Your task to perform on an android device: toggle notification dots Image 0: 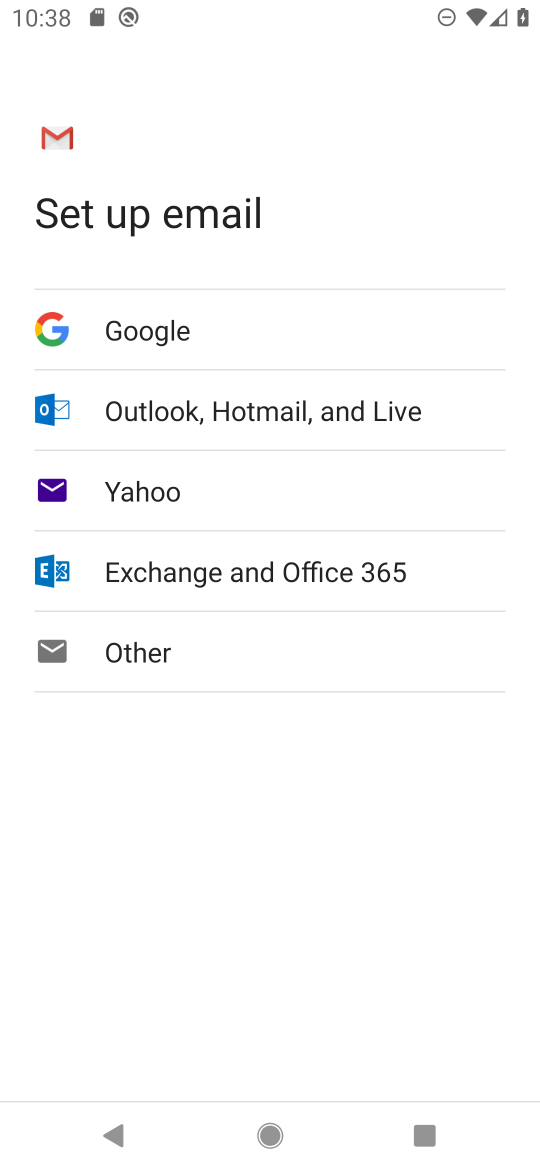
Step 0: press home button
Your task to perform on an android device: toggle notification dots Image 1: 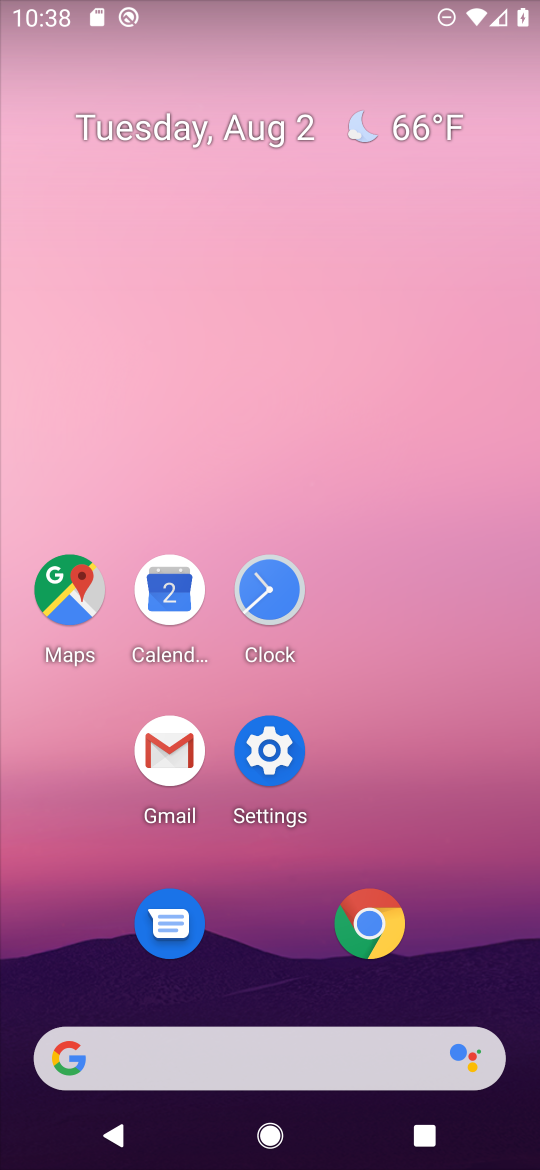
Step 1: click (264, 746)
Your task to perform on an android device: toggle notification dots Image 2: 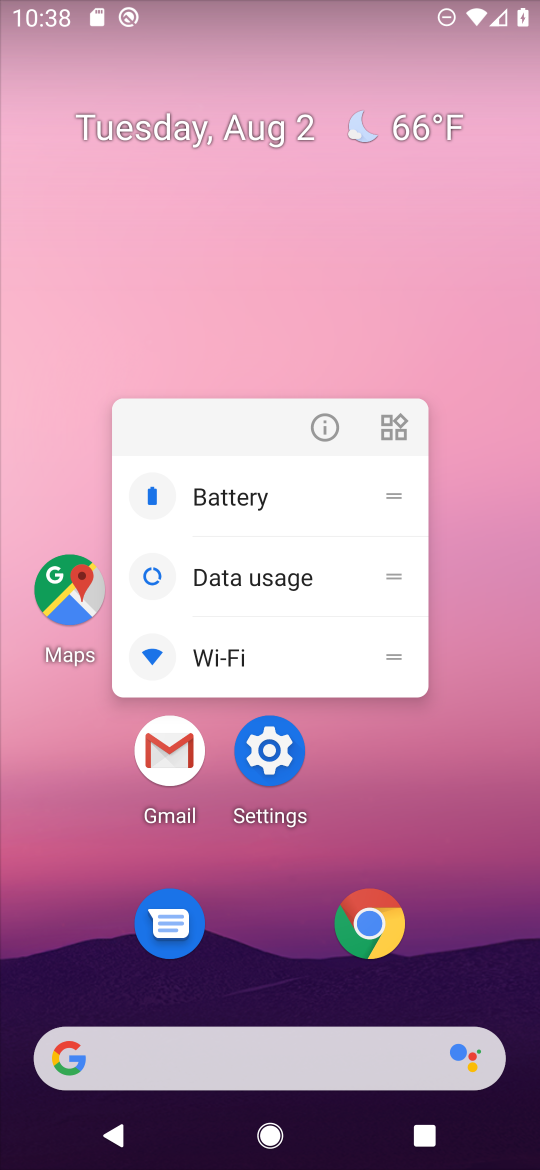
Step 2: click (264, 746)
Your task to perform on an android device: toggle notification dots Image 3: 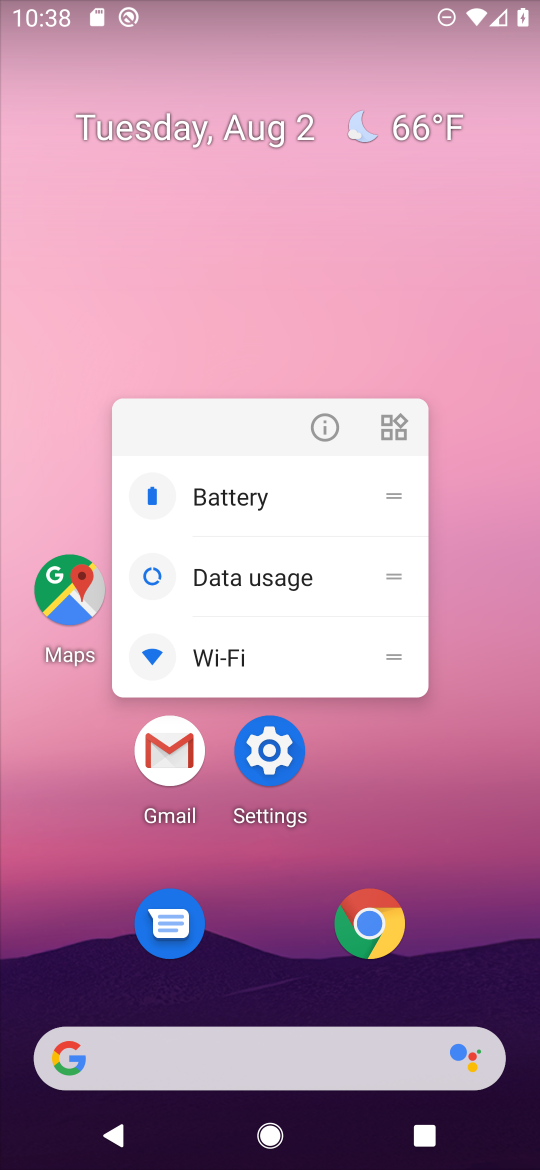
Step 3: click (264, 746)
Your task to perform on an android device: toggle notification dots Image 4: 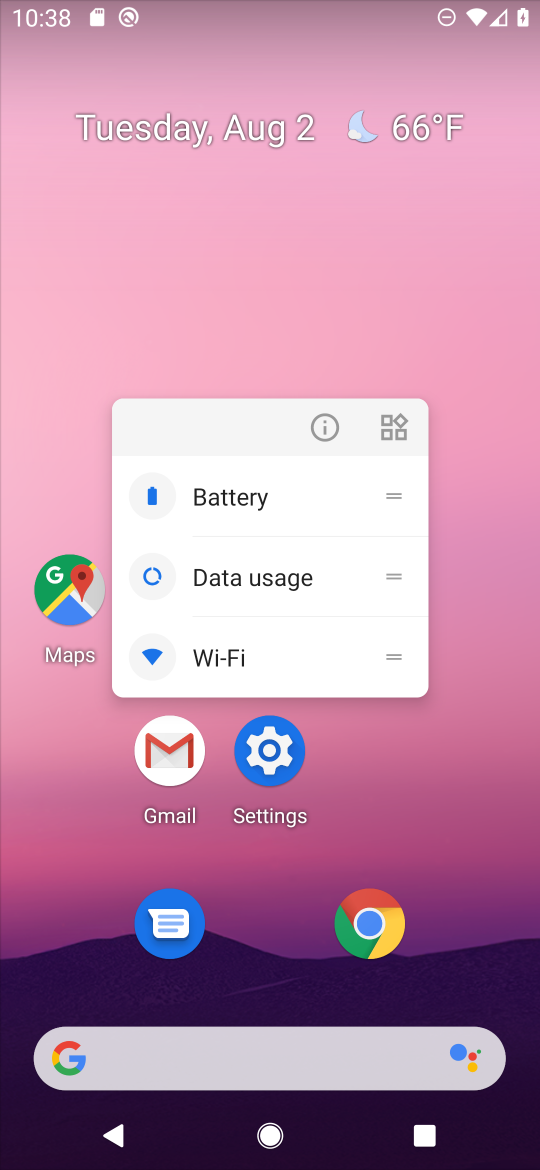
Step 4: click (264, 746)
Your task to perform on an android device: toggle notification dots Image 5: 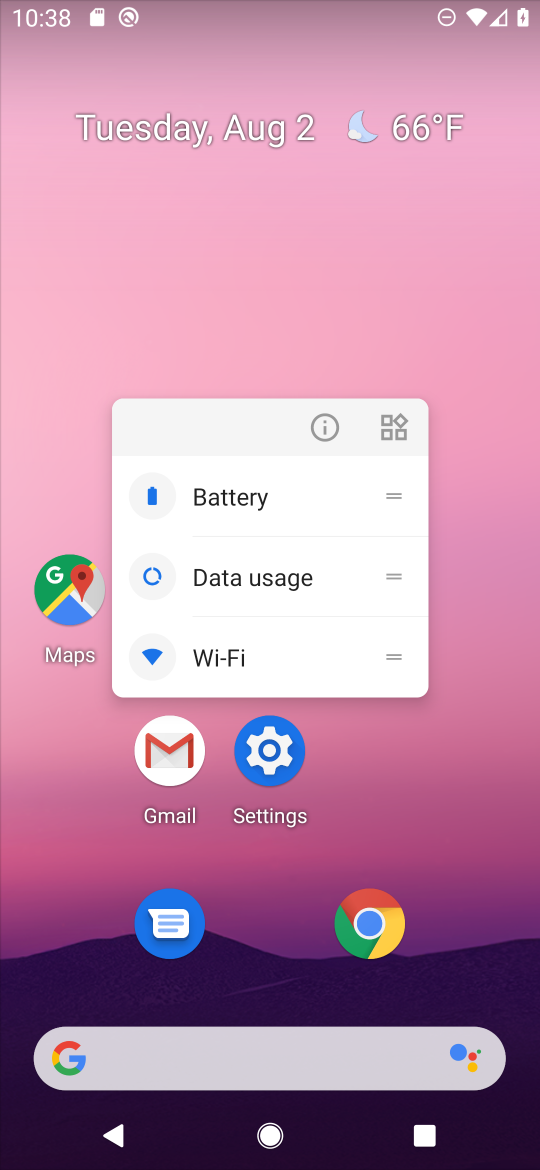
Step 5: click (264, 749)
Your task to perform on an android device: toggle notification dots Image 6: 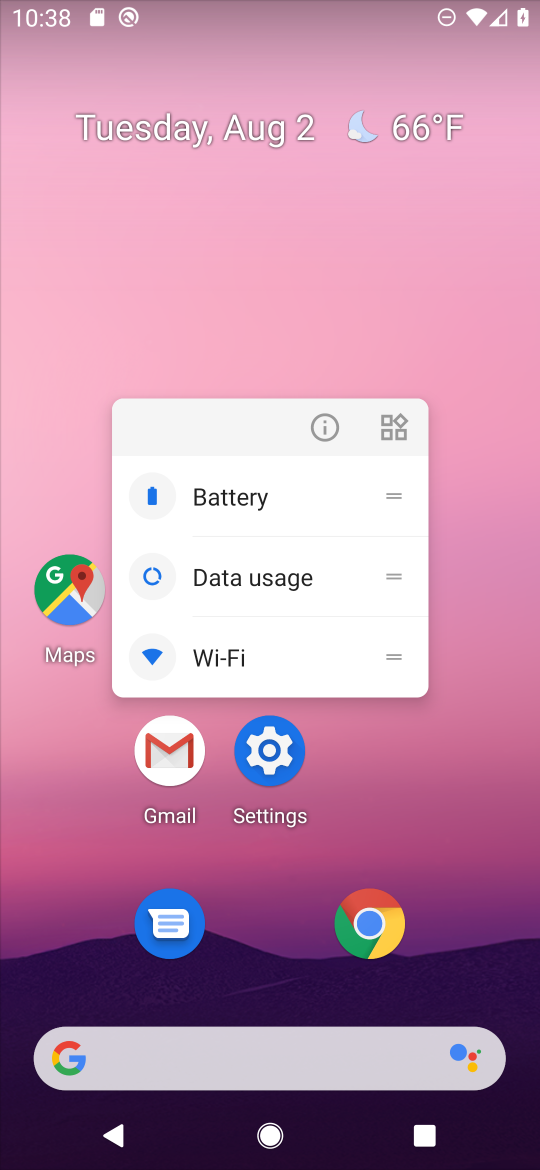
Step 6: click (264, 749)
Your task to perform on an android device: toggle notification dots Image 7: 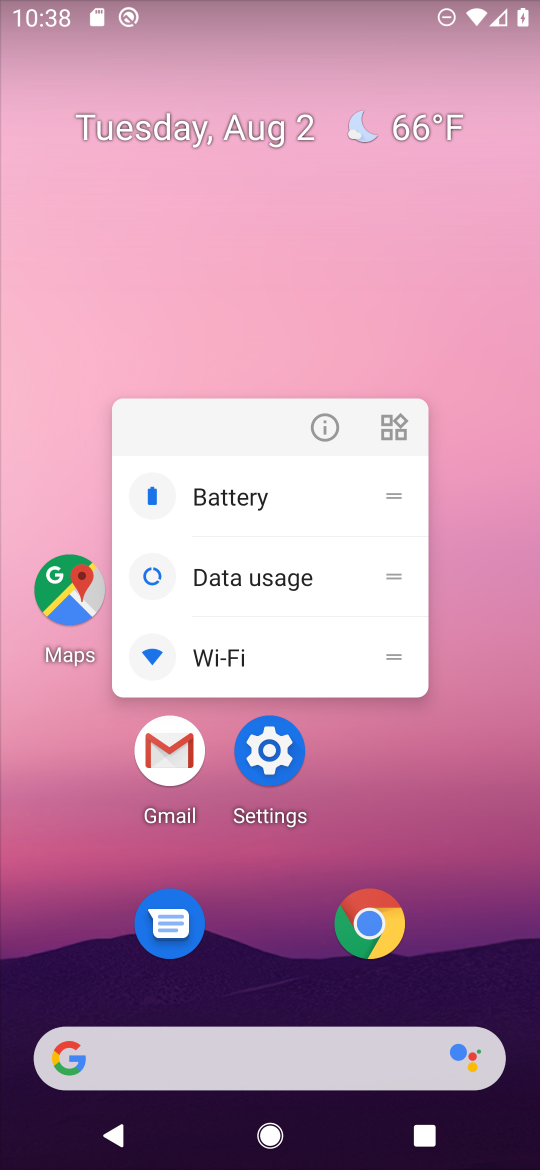
Step 7: click (278, 761)
Your task to perform on an android device: toggle notification dots Image 8: 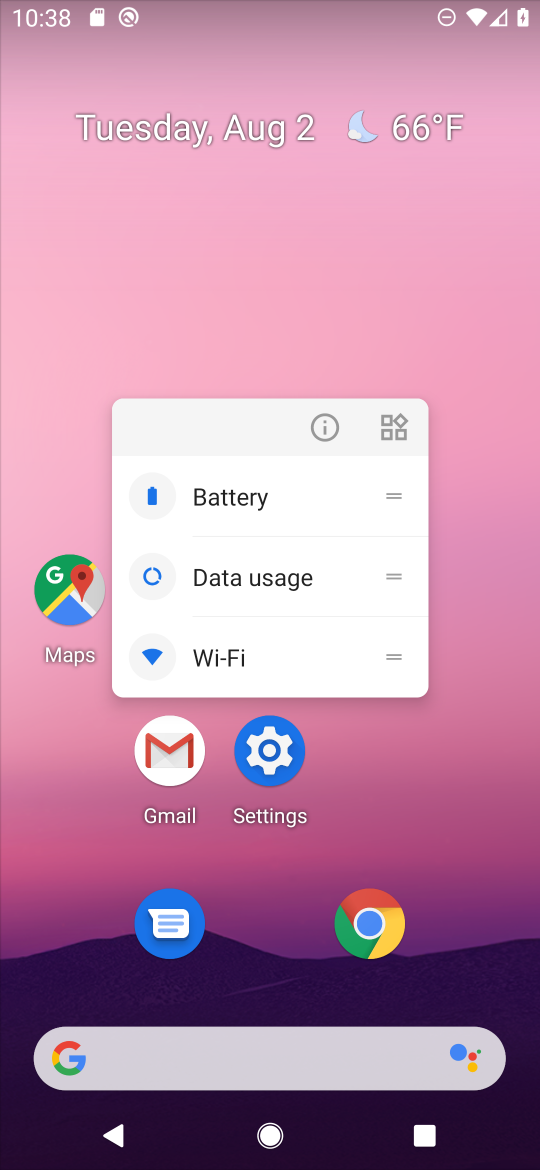
Step 8: click (277, 757)
Your task to perform on an android device: toggle notification dots Image 9: 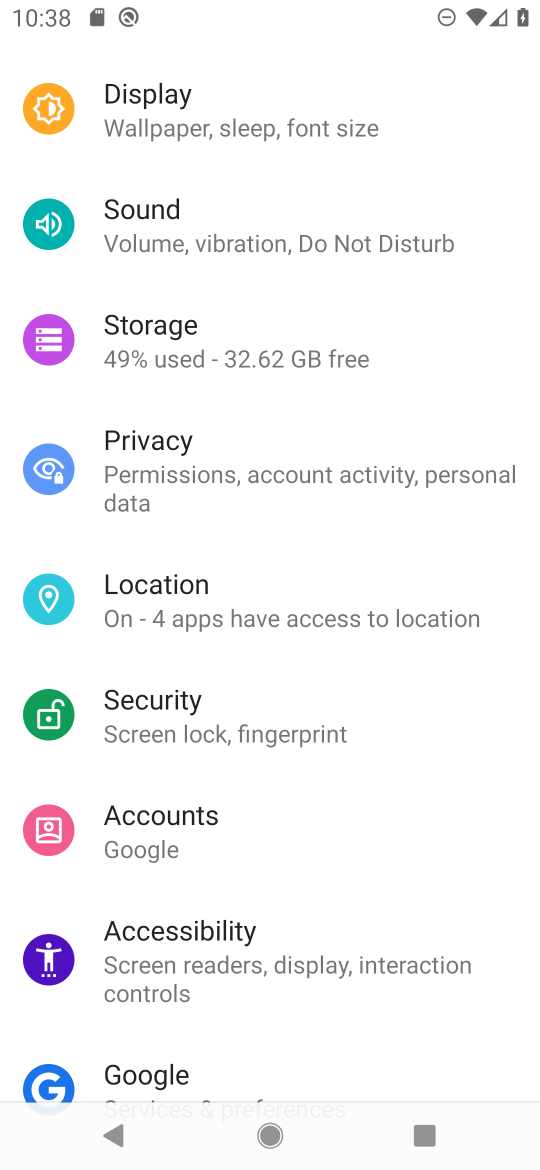
Step 9: drag from (406, 118) to (351, 851)
Your task to perform on an android device: toggle notification dots Image 10: 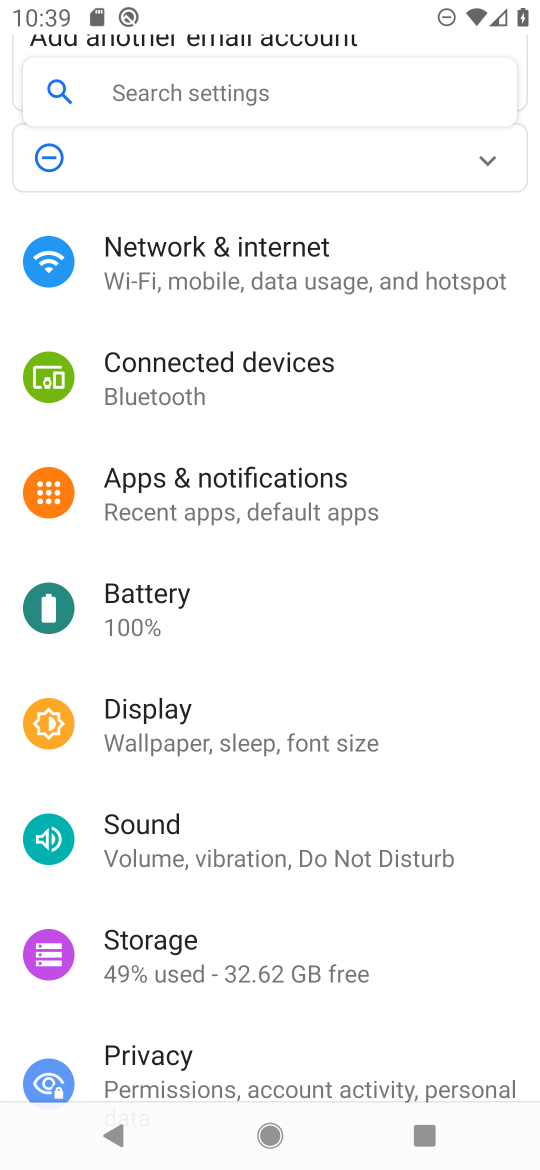
Step 10: click (243, 485)
Your task to perform on an android device: toggle notification dots Image 11: 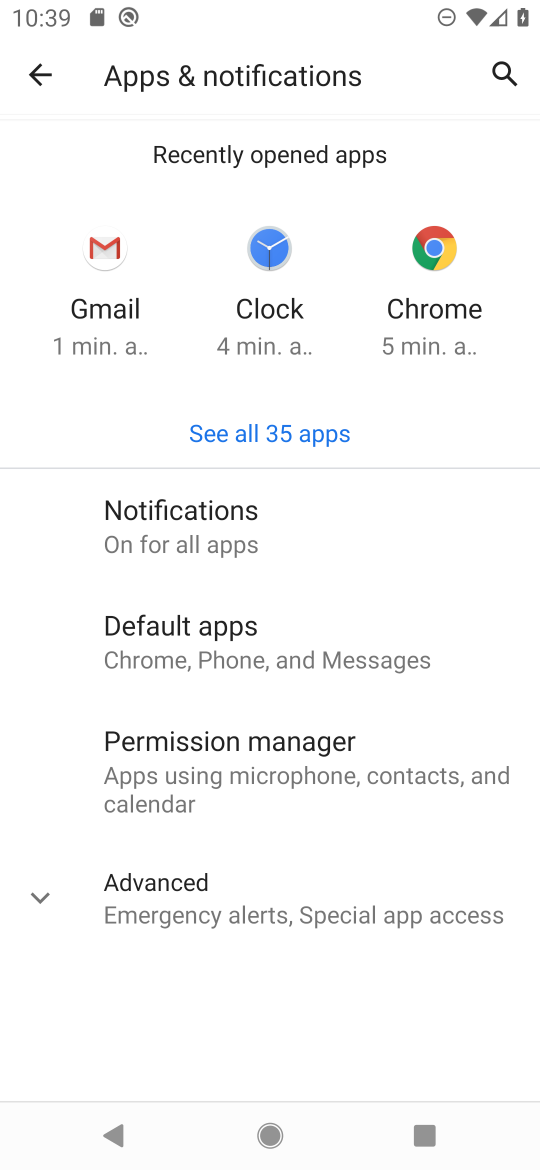
Step 11: click (146, 542)
Your task to perform on an android device: toggle notification dots Image 12: 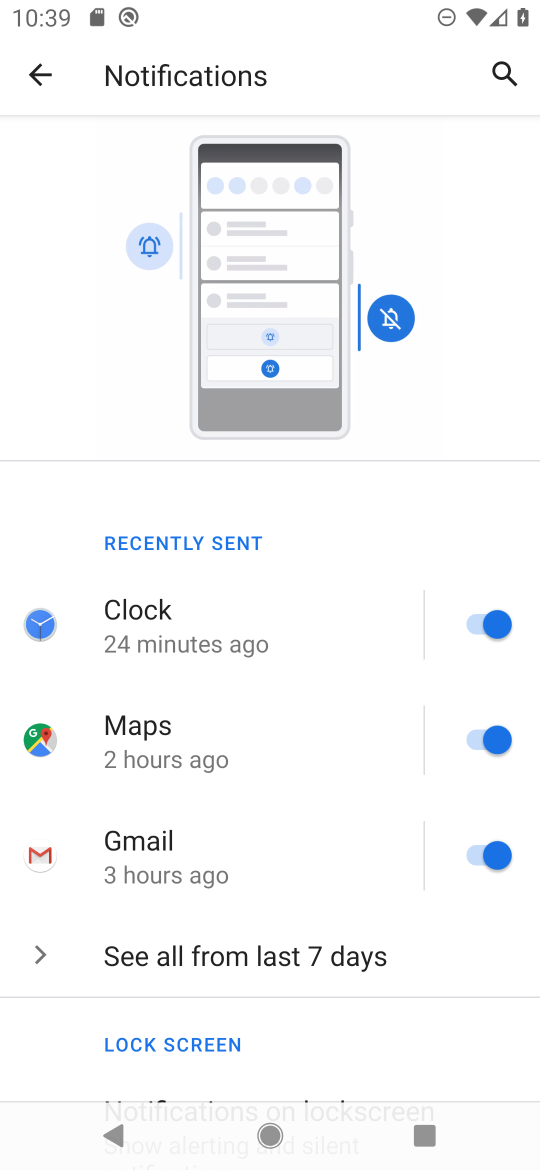
Step 12: drag from (330, 699) to (330, 227)
Your task to perform on an android device: toggle notification dots Image 13: 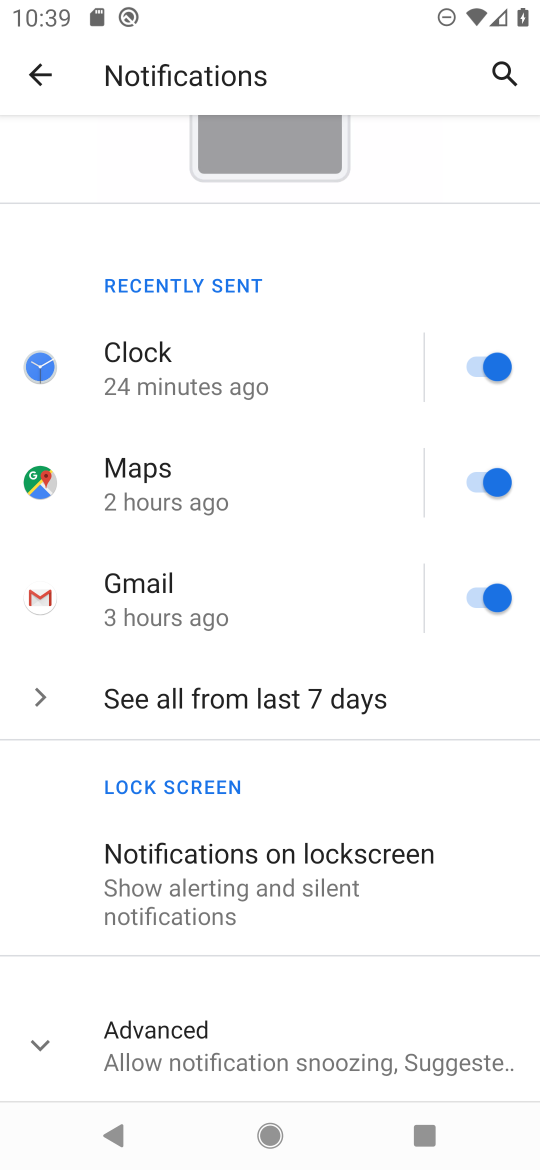
Step 13: drag from (351, 914) to (372, 449)
Your task to perform on an android device: toggle notification dots Image 14: 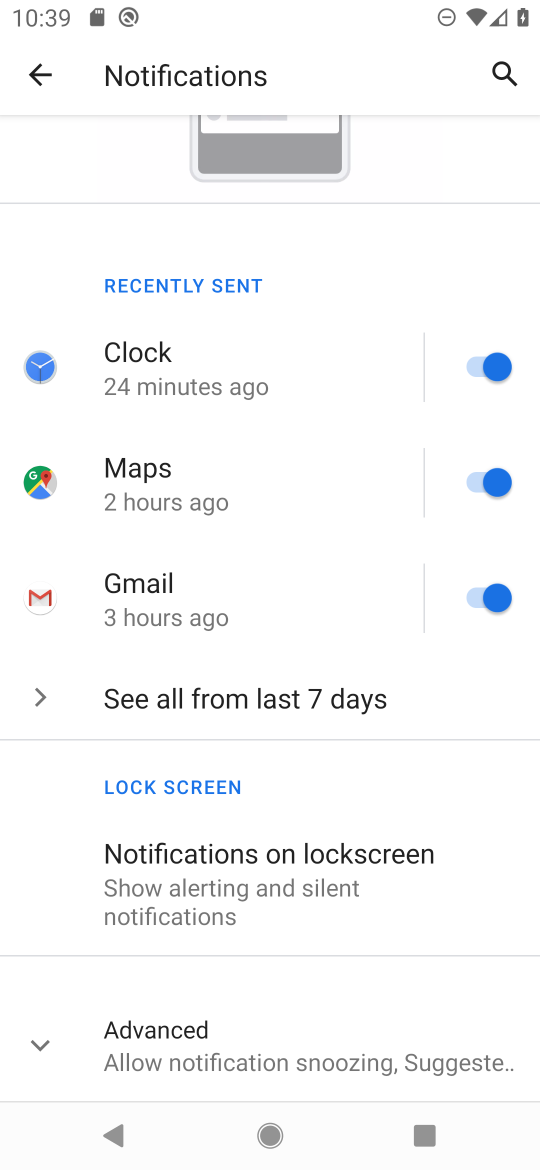
Step 14: click (51, 1042)
Your task to perform on an android device: toggle notification dots Image 15: 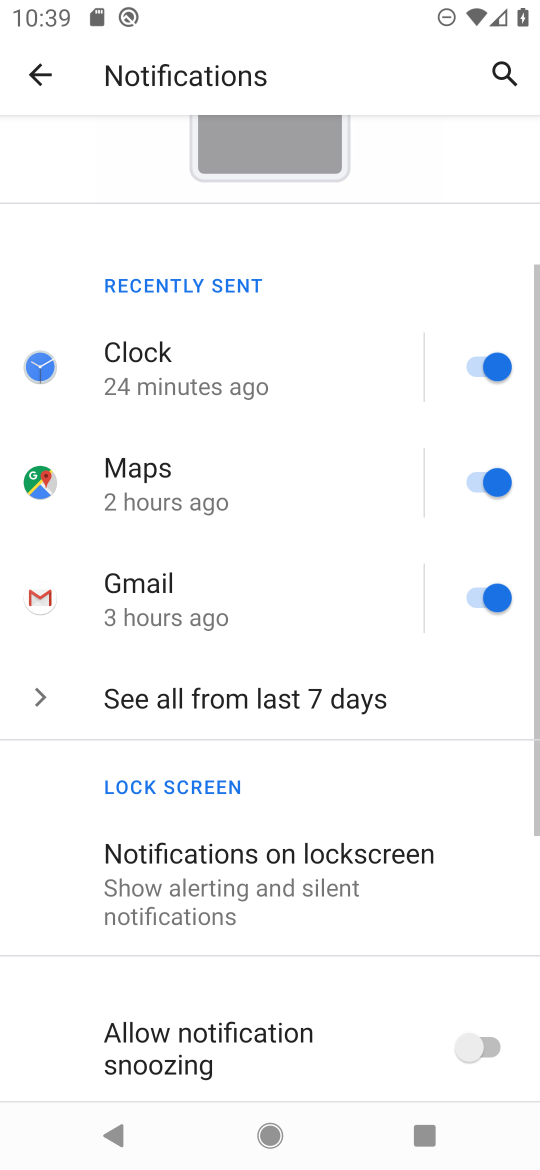
Step 15: drag from (415, 977) to (421, 402)
Your task to perform on an android device: toggle notification dots Image 16: 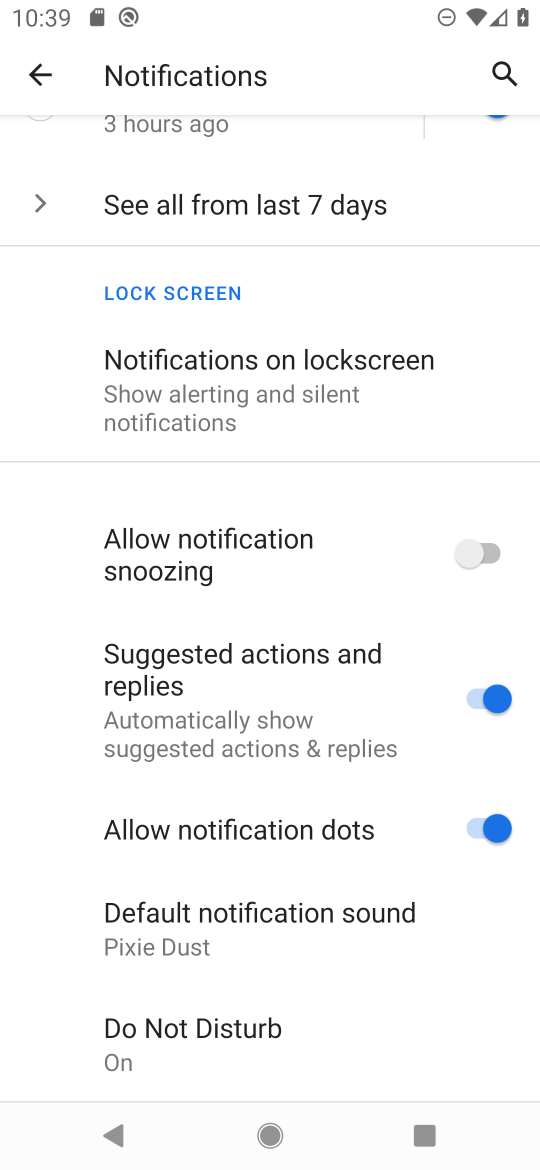
Step 16: click (465, 826)
Your task to perform on an android device: toggle notification dots Image 17: 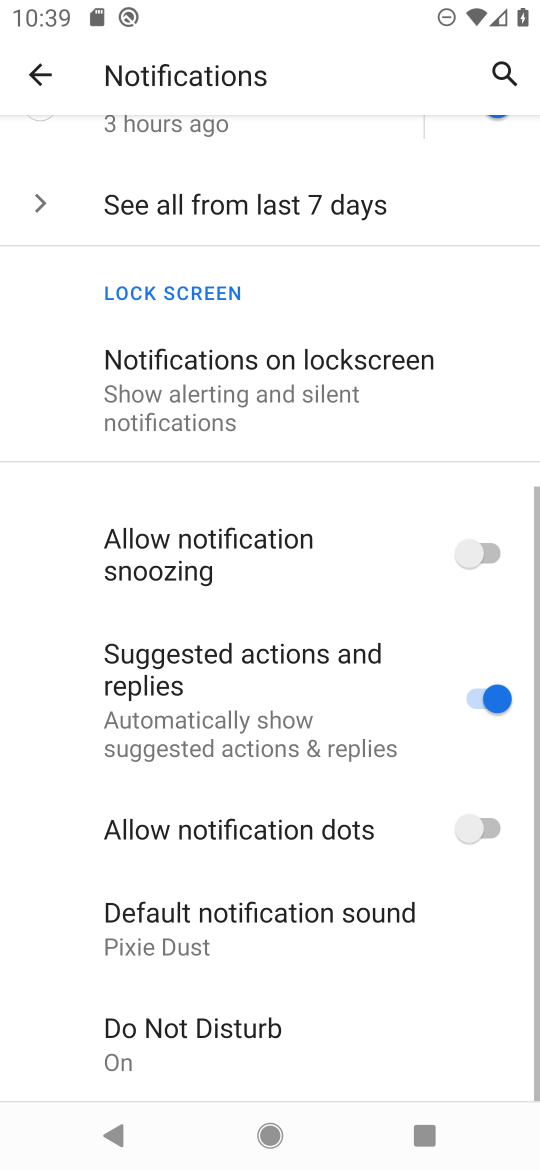
Step 17: task complete